Your task to perform on an android device: open sync settings in chrome Image 0: 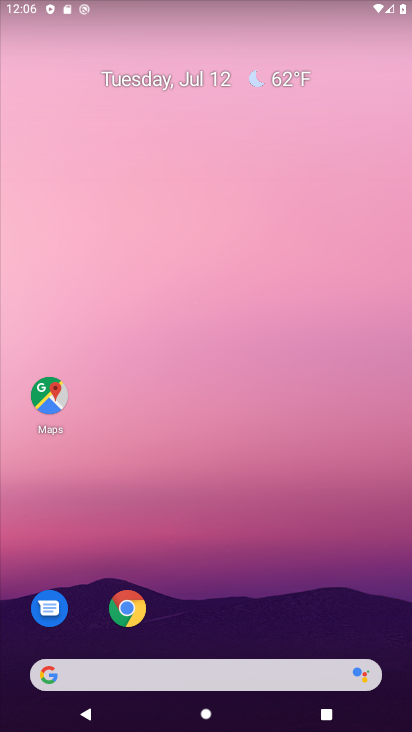
Step 0: drag from (288, 617) to (268, 0)
Your task to perform on an android device: open sync settings in chrome Image 1: 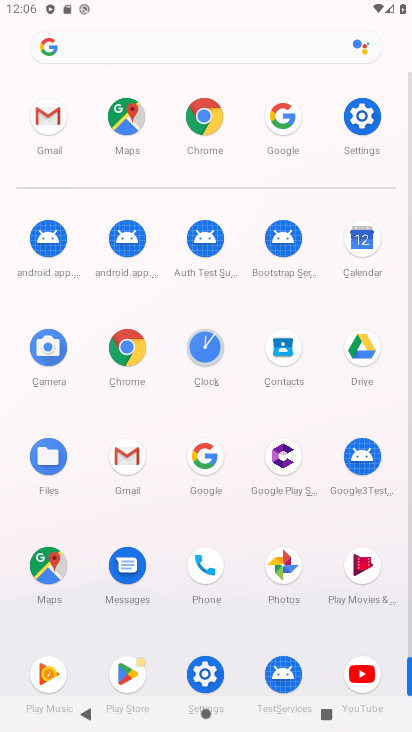
Step 1: click (206, 108)
Your task to perform on an android device: open sync settings in chrome Image 2: 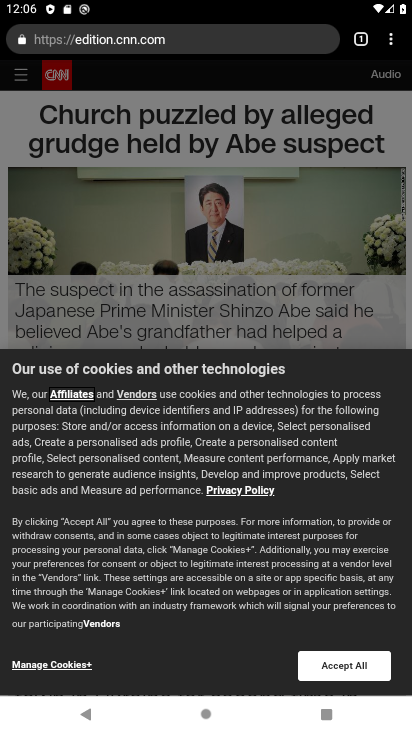
Step 2: drag from (399, 30) to (303, 424)
Your task to perform on an android device: open sync settings in chrome Image 3: 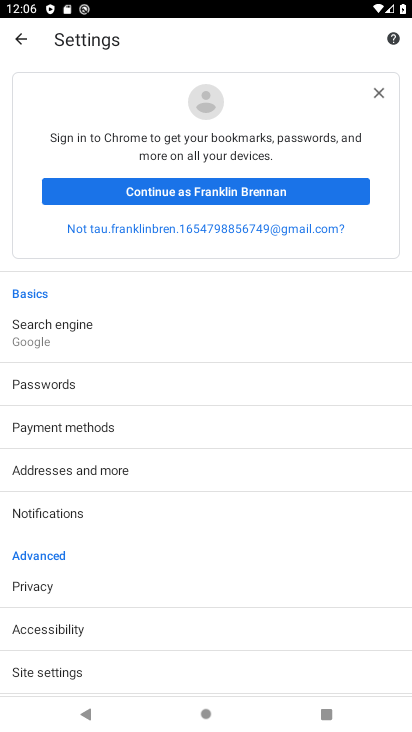
Step 3: drag from (106, 689) to (204, 207)
Your task to perform on an android device: open sync settings in chrome Image 4: 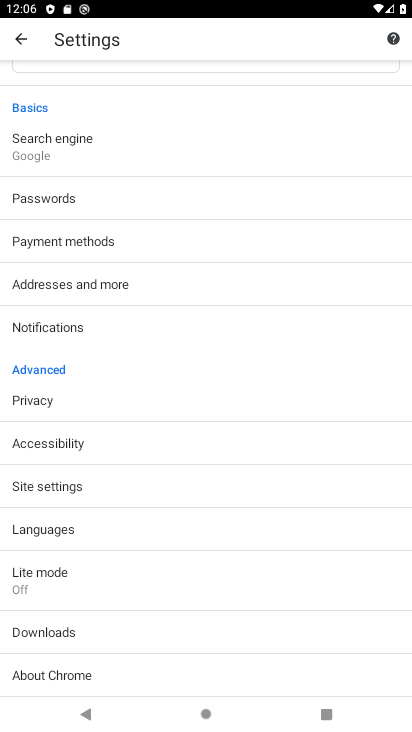
Step 4: click (82, 484)
Your task to perform on an android device: open sync settings in chrome Image 5: 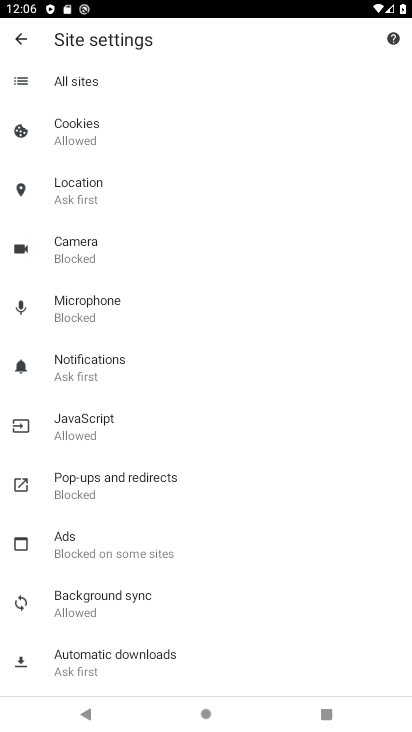
Step 5: drag from (120, 657) to (227, 141)
Your task to perform on an android device: open sync settings in chrome Image 6: 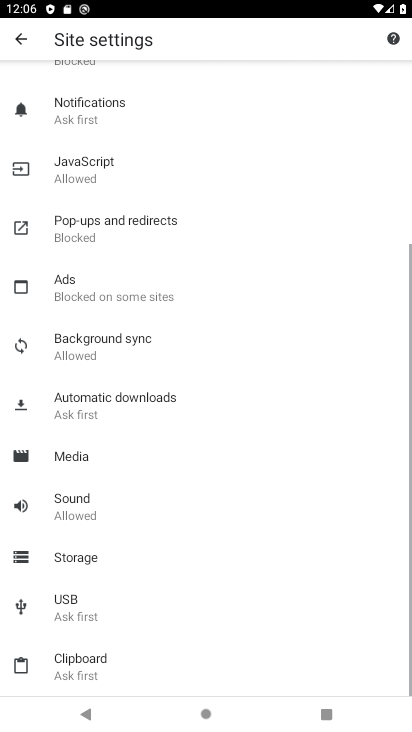
Step 6: drag from (139, 636) to (216, 82)
Your task to perform on an android device: open sync settings in chrome Image 7: 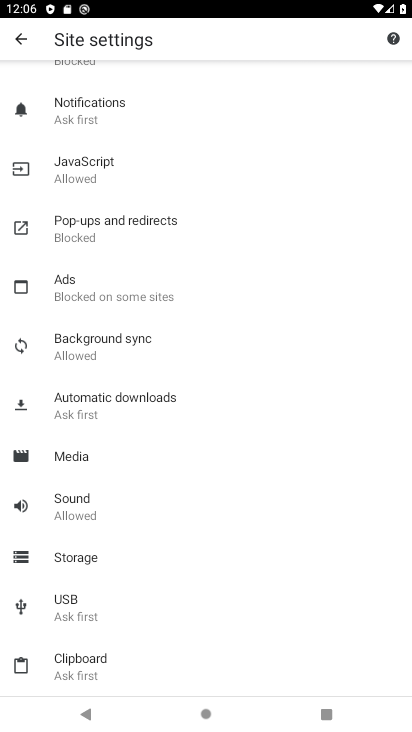
Step 7: drag from (229, 139) to (254, 699)
Your task to perform on an android device: open sync settings in chrome Image 8: 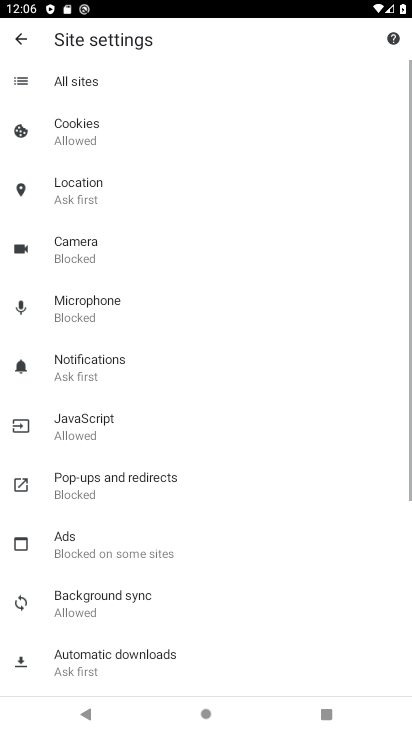
Step 8: drag from (254, 239) to (245, 551)
Your task to perform on an android device: open sync settings in chrome Image 9: 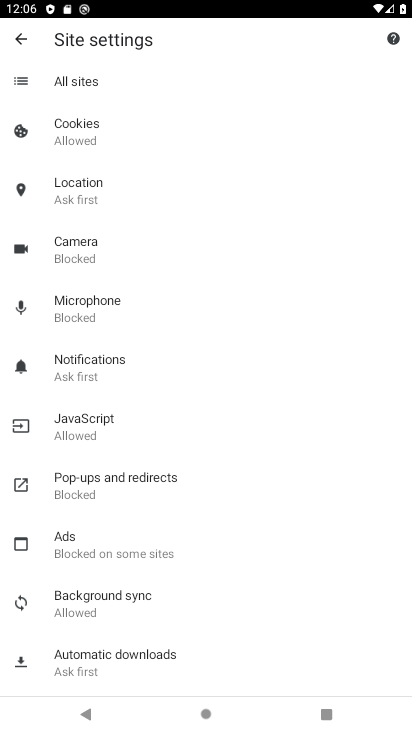
Step 9: drag from (247, 637) to (275, 110)
Your task to perform on an android device: open sync settings in chrome Image 10: 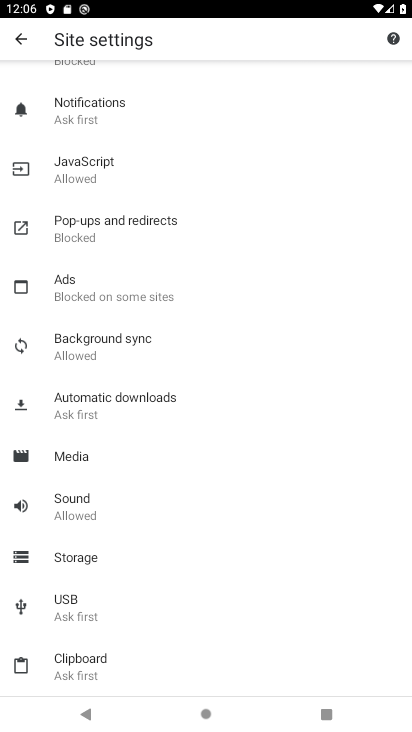
Step 10: click (92, 356)
Your task to perform on an android device: open sync settings in chrome Image 11: 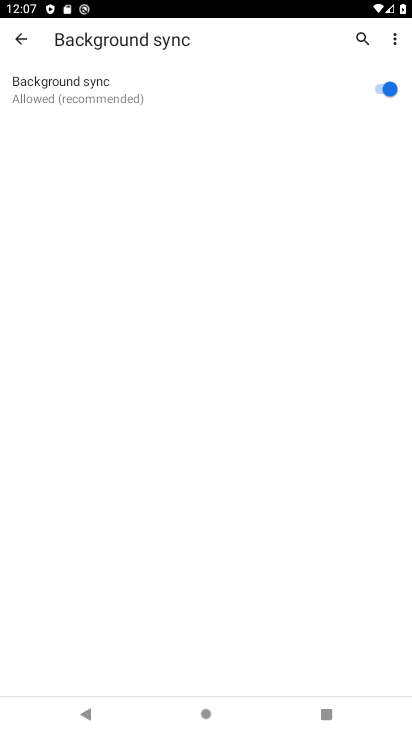
Step 11: task complete